Your task to perform on an android device: toggle javascript in the chrome app Image 0: 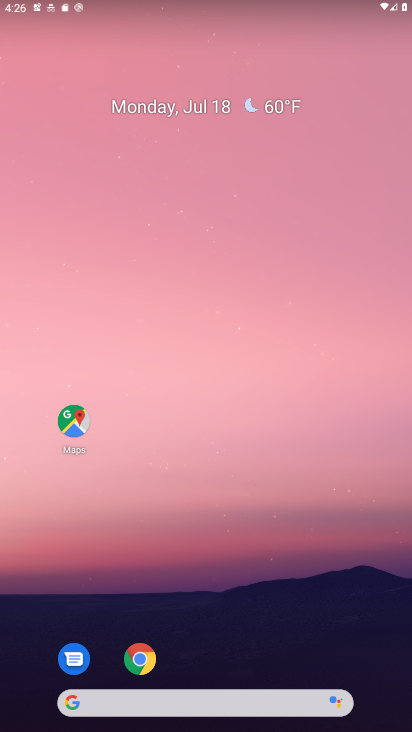
Step 0: drag from (208, 712) to (342, 1)
Your task to perform on an android device: toggle javascript in the chrome app Image 1: 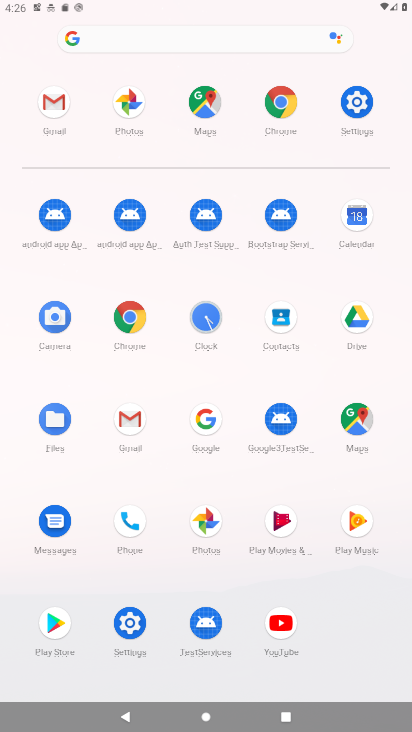
Step 1: click (129, 314)
Your task to perform on an android device: toggle javascript in the chrome app Image 2: 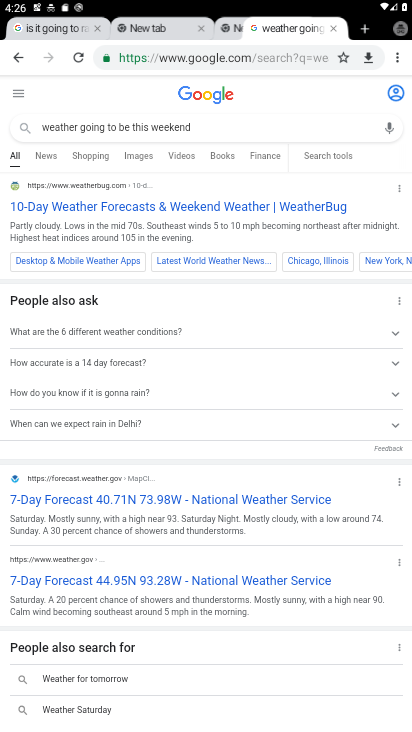
Step 2: drag from (399, 56) to (330, 359)
Your task to perform on an android device: toggle javascript in the chrome app Image 3: 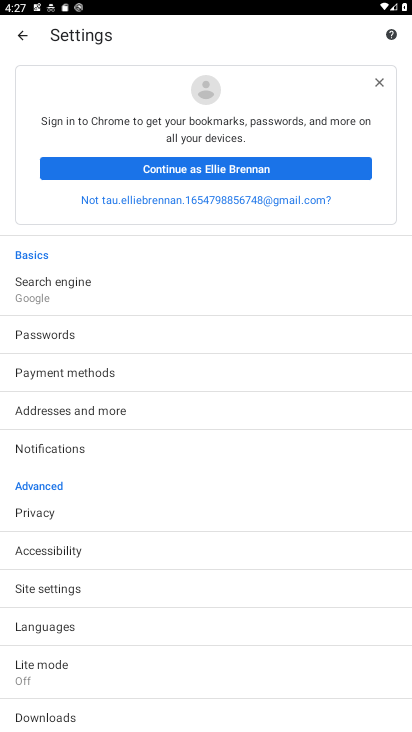
Step 3: click (90, 588)
Your task to perform on an android device: toggle javascript in the chrome app Image 4: 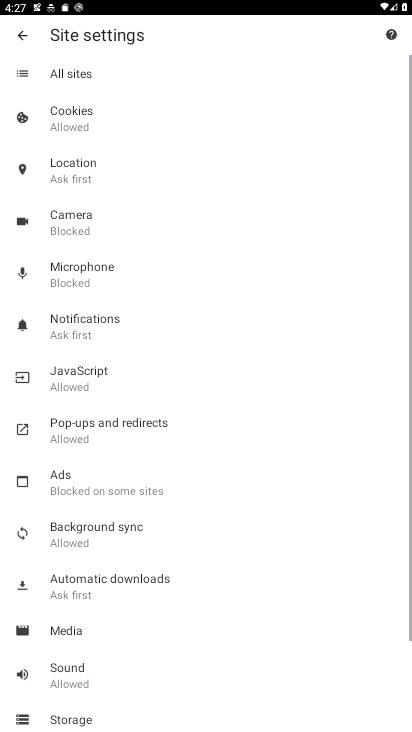
Step 4: click (93, 382)
Your task to perform on an android device: toggle javascript in the chrome app Image 5: 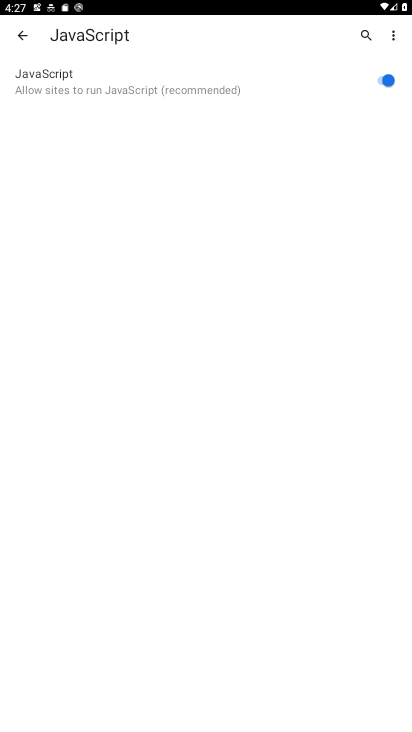
Step 5: click (385, 75)
Your task to perform on an android device: toggle javascript in the chrome app Image 6: 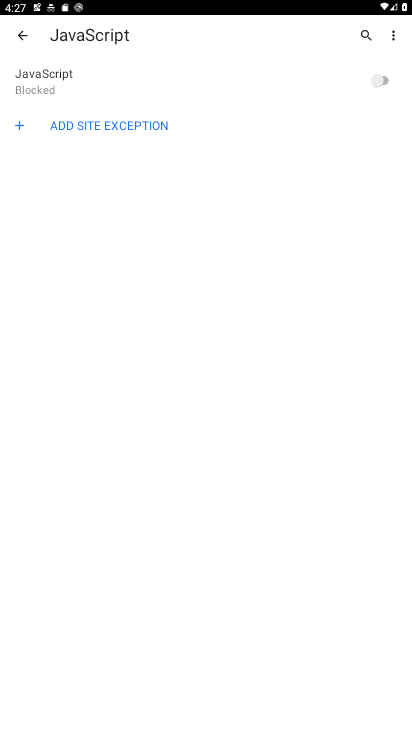
Step 6: task complete